Your task to perform on an android device: Open the calendar app, open the side menu, and click the "Day" option Image 0: 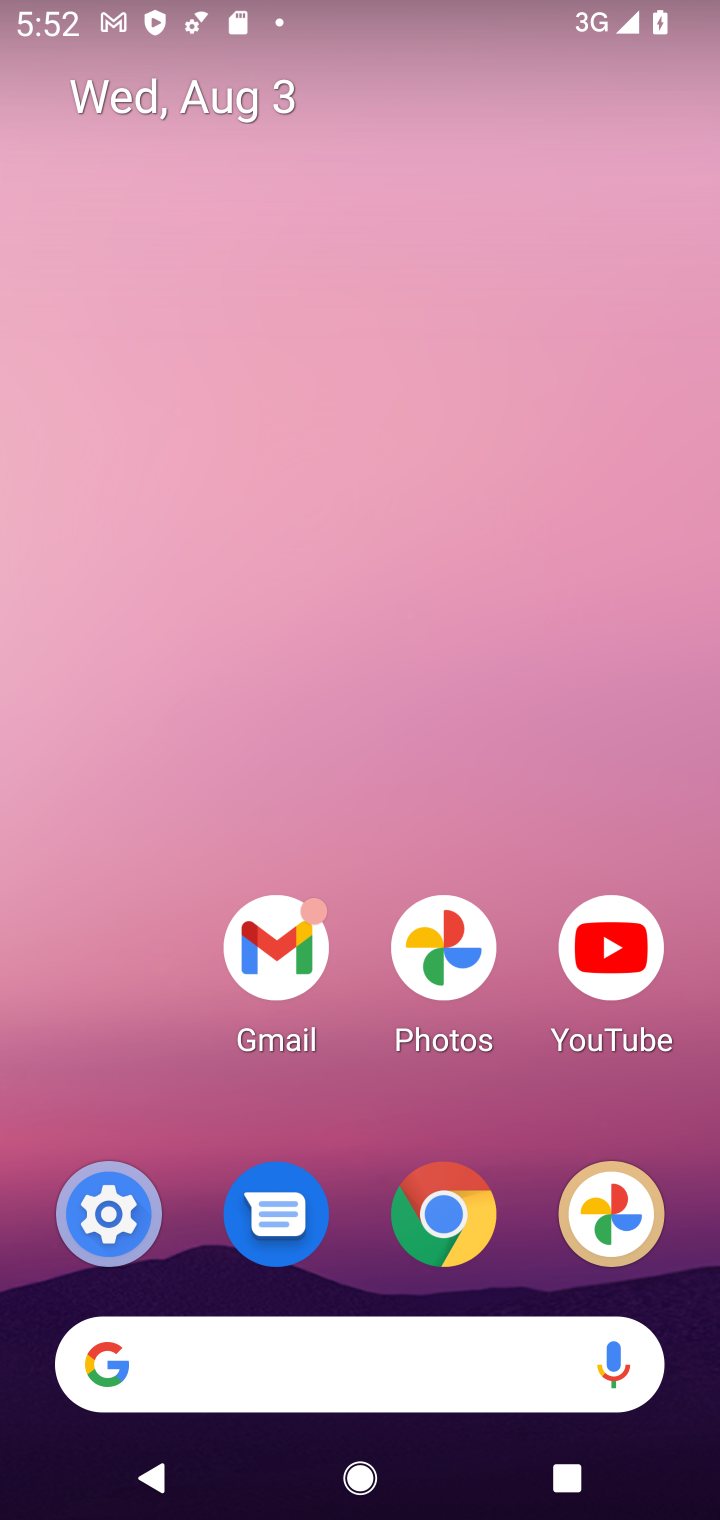
Step 0: drag from (367, 1256) to (411, 295)
Your task to perform on an android device: Open the calendar app, open the side menu, and click the "Day" option Image 1: 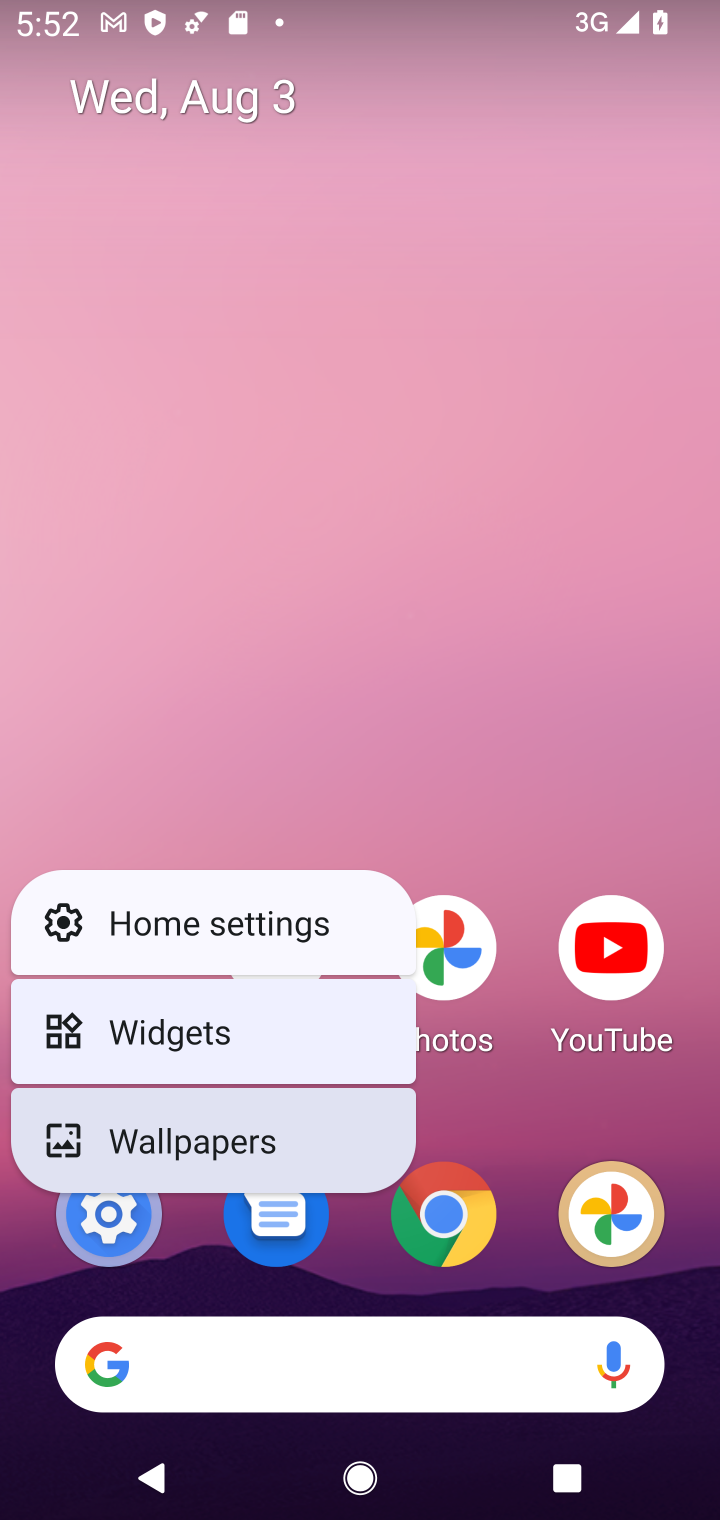
Step 1: click (439, 541)
Your task to perform on an android device: Open the calendar app, open the side menu, and click the "Day" option Image 2: 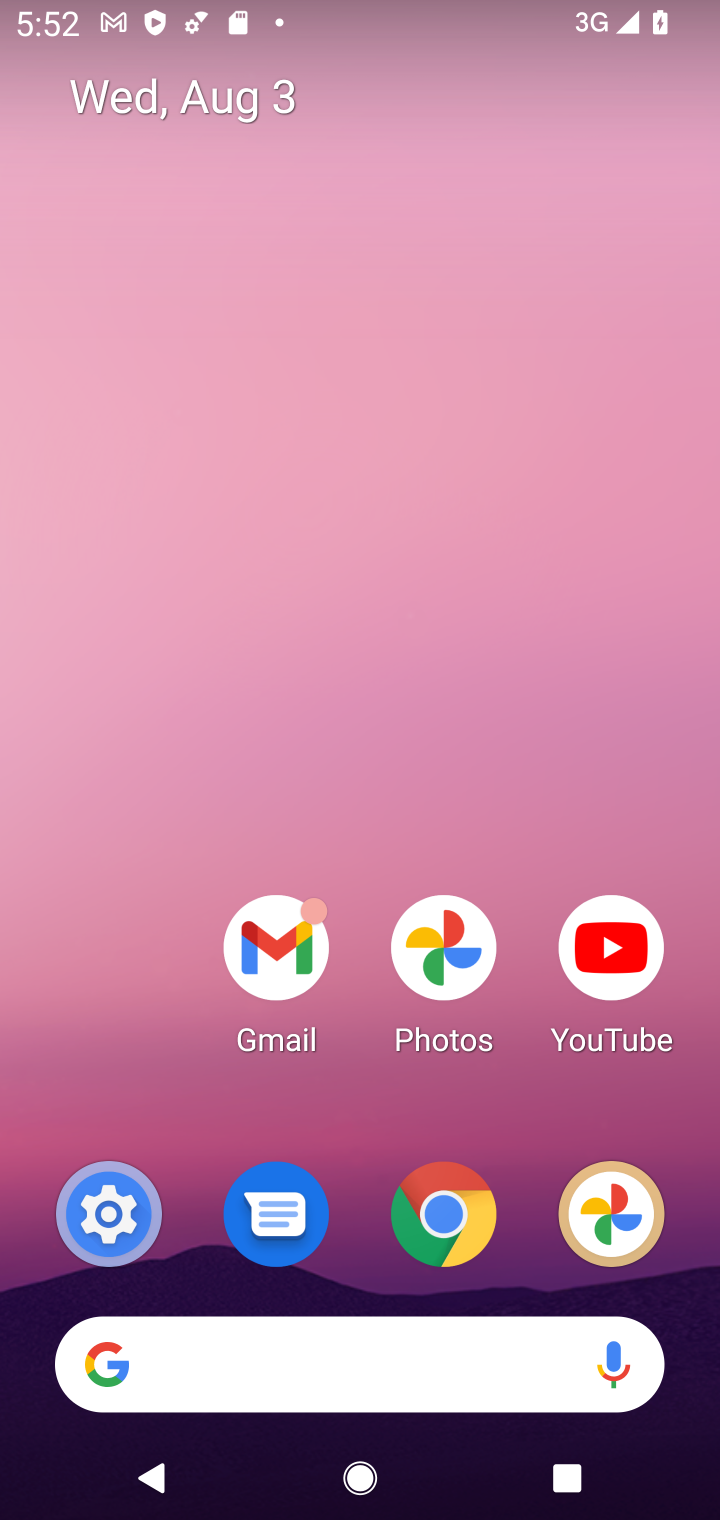
Step 2: drag from (370, 1281) to (490, 20)
Your task to perform on an android device: Open the calendar app, open the side menu, and click the "Day" option Image 3: 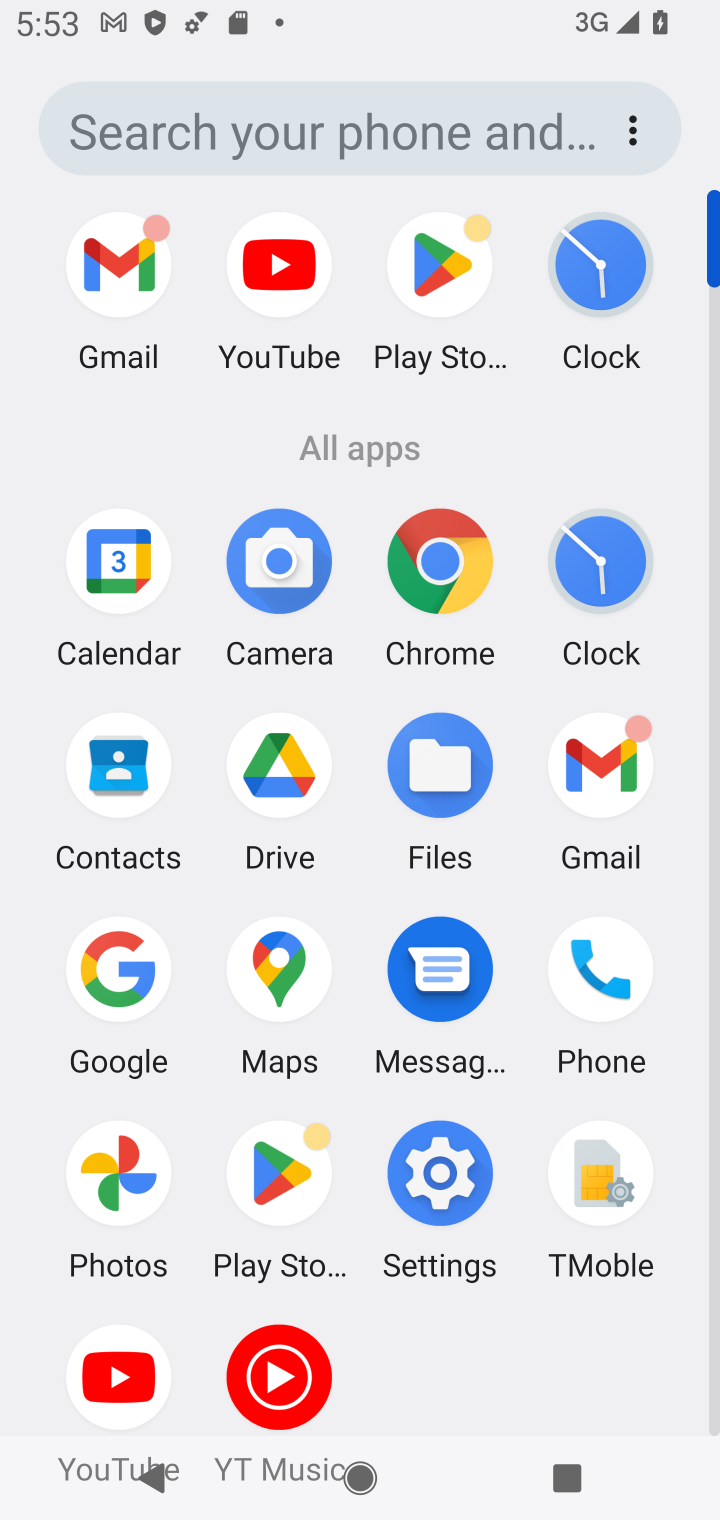
Step 3: click (110, 551)
Your task to perform on an android device: Open the calendar app, open the side menu, and click the "Day" option Image 4: 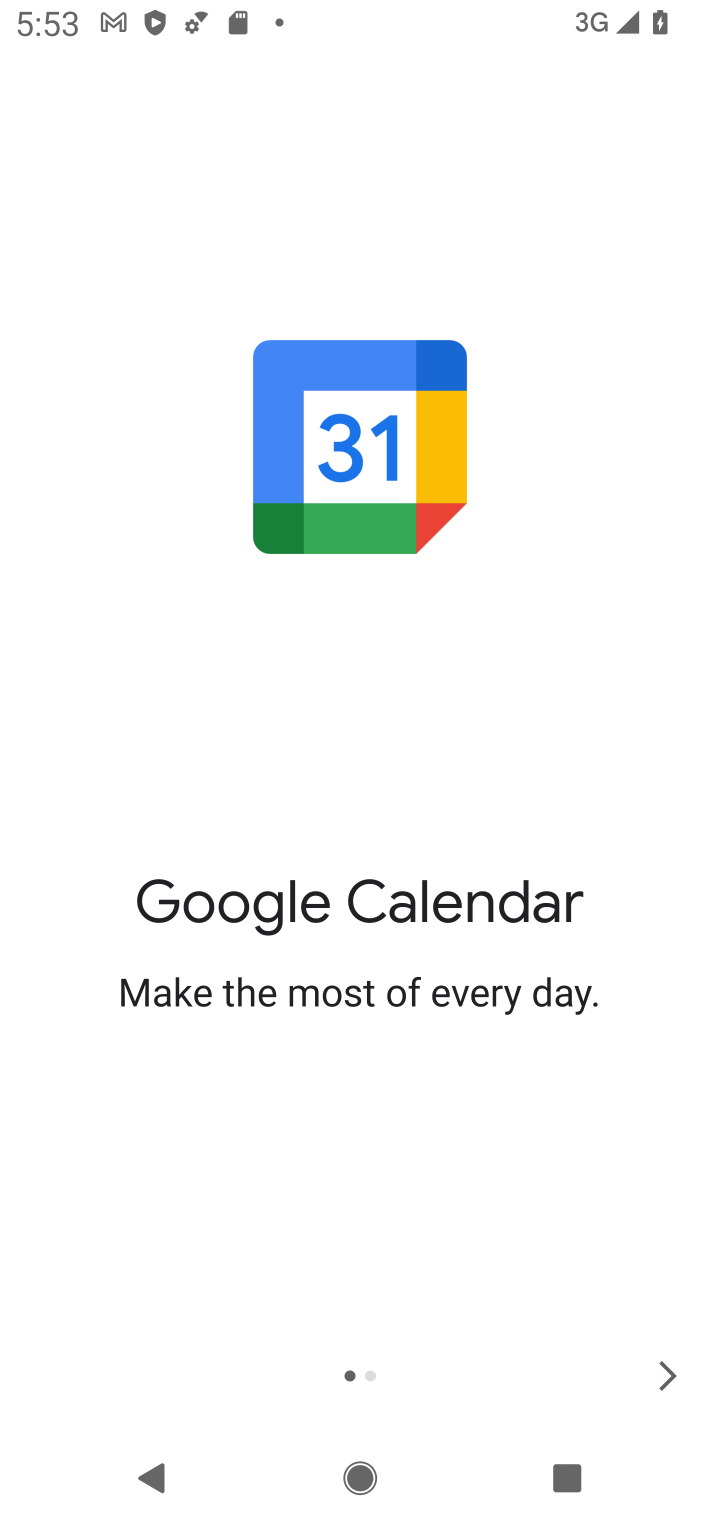
Step 4: click (654, 1387)
Your task to perform on an android device: Open the calendar app, open the side menu, and click the "Day" option Image 5: 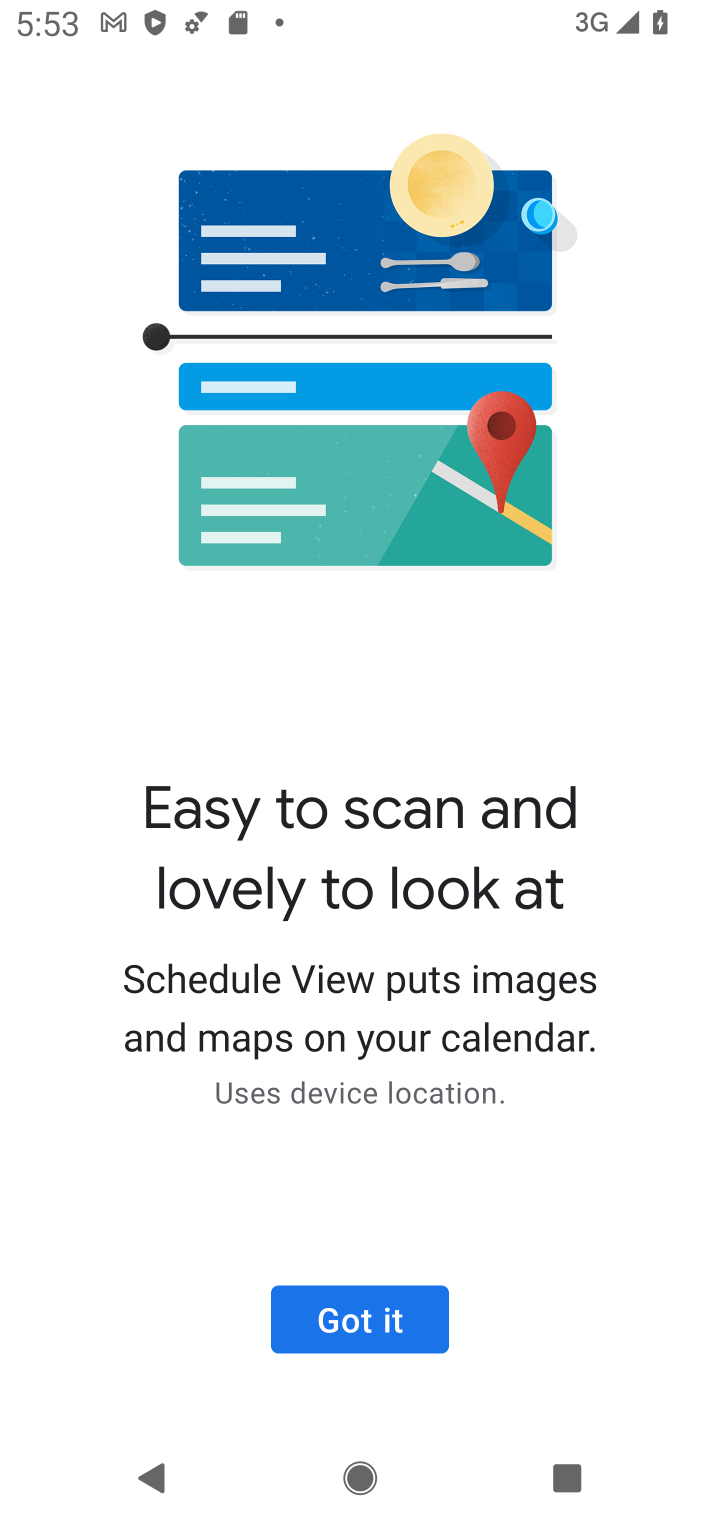
Step 5: click (366, 1318)
Your task to perform on an android device: Open the calendar app, open the side menu, and click the "Day" option Image 6: 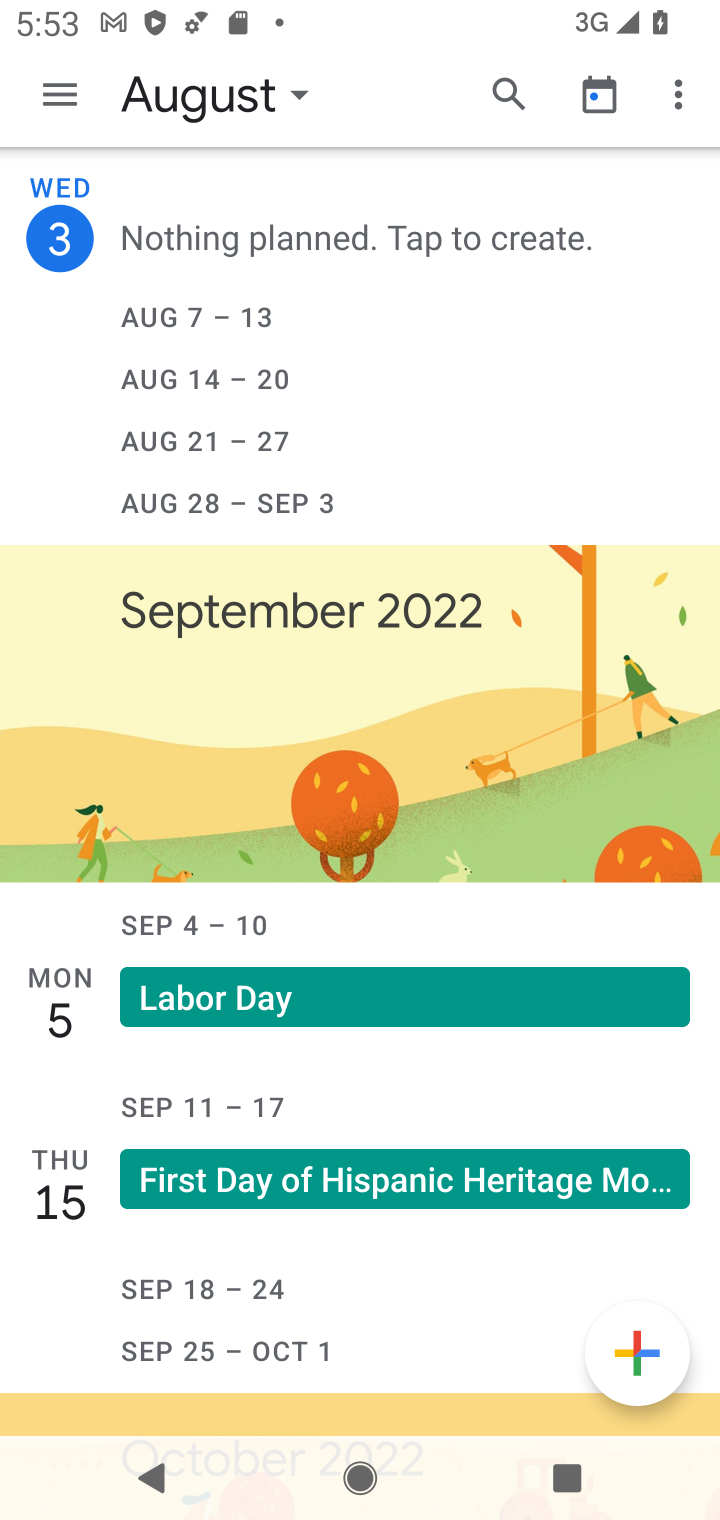
Step 6: click (54, 89)
Your task to perform on an android device: Open the calendar app, open the side menu, and click the "Day" option Image 7: 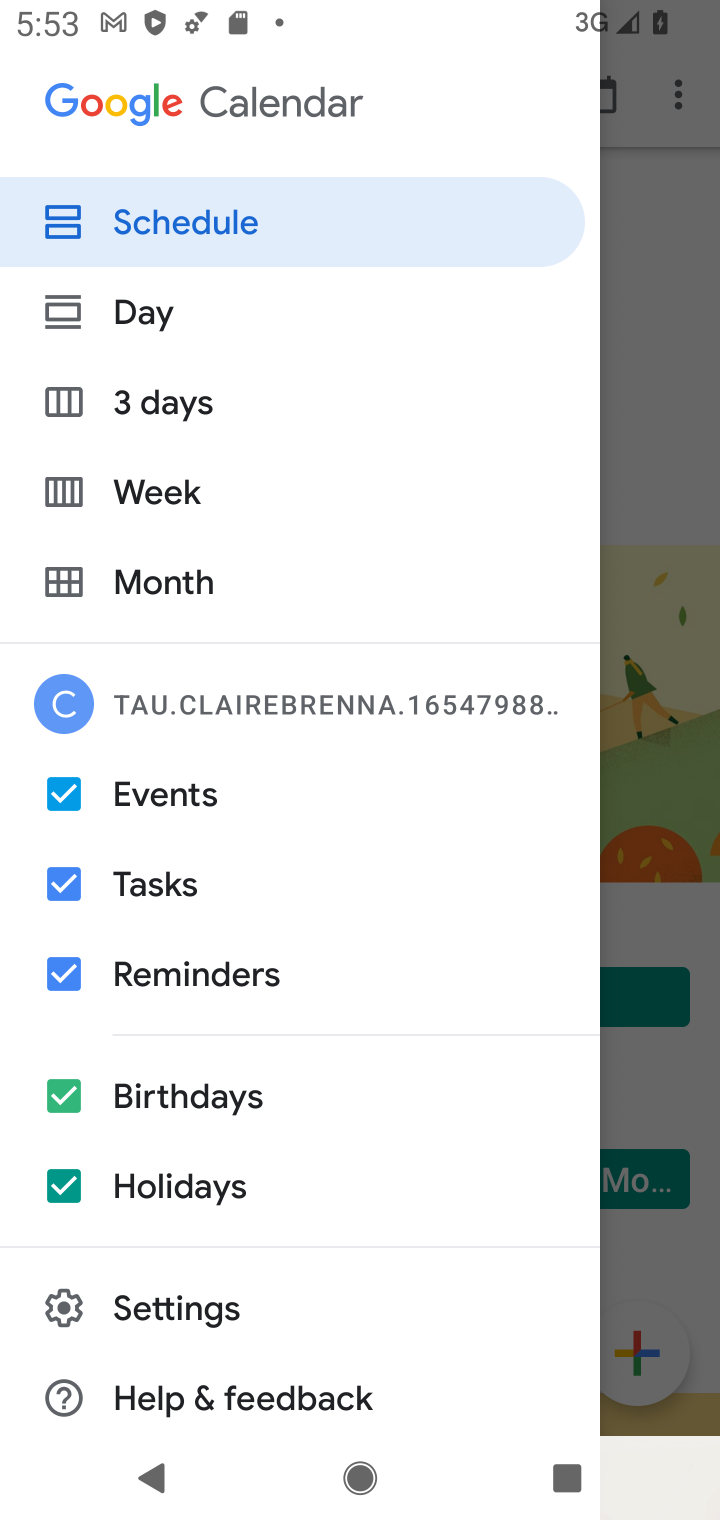
Step 7: click (159, 287)
Your task to perform on an android device: Open the calendar app, open the side menu, and click the "Day" option Image 8: 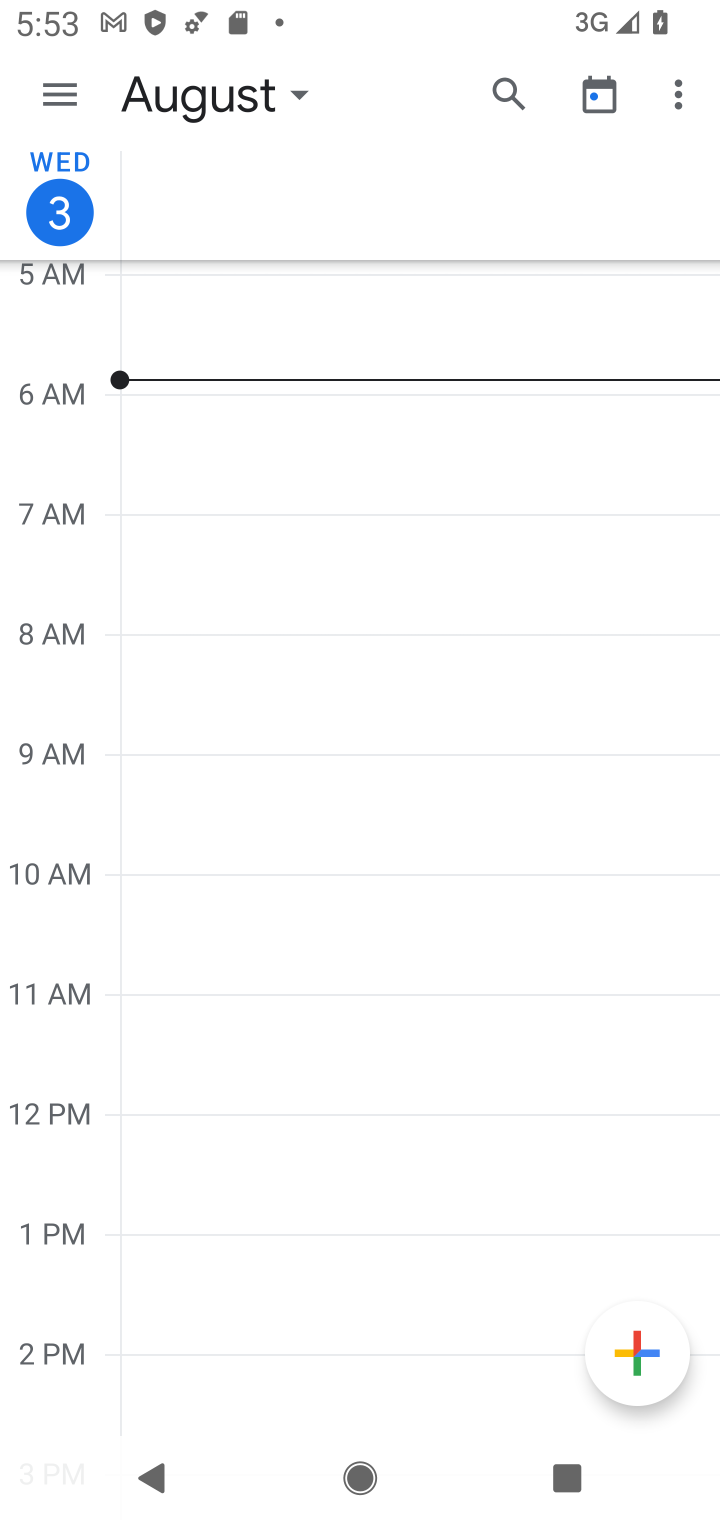
Step 8: task complete